Your task to perform on an android device: Search for the best rated Bluetooth earbuds on Ali express Image 0: 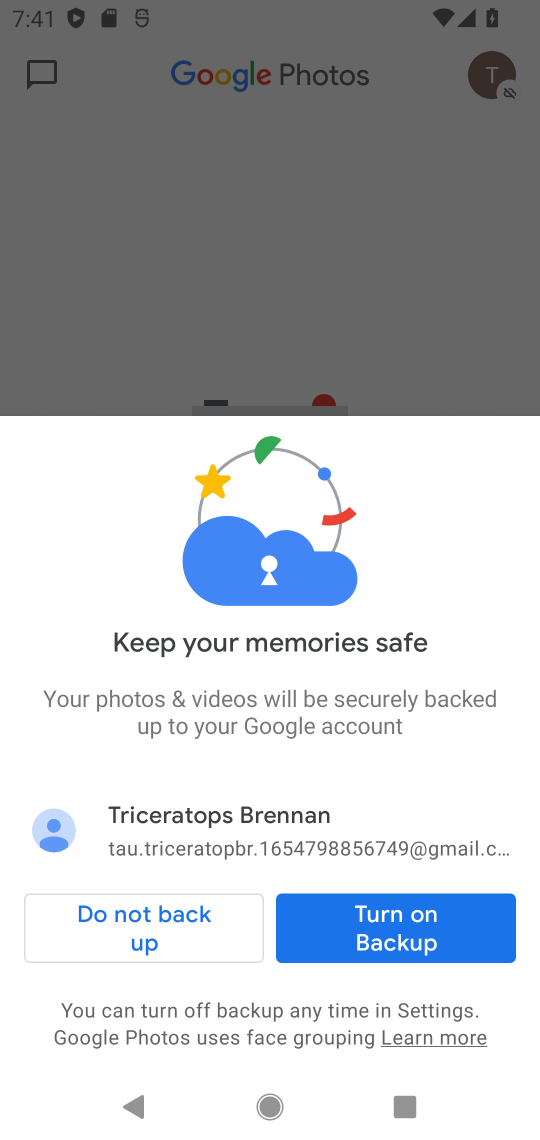
Step 0: press home button
Your task to perform on an android device: Search for the best rated Bluetooth earbuds on Ali express Image 1: 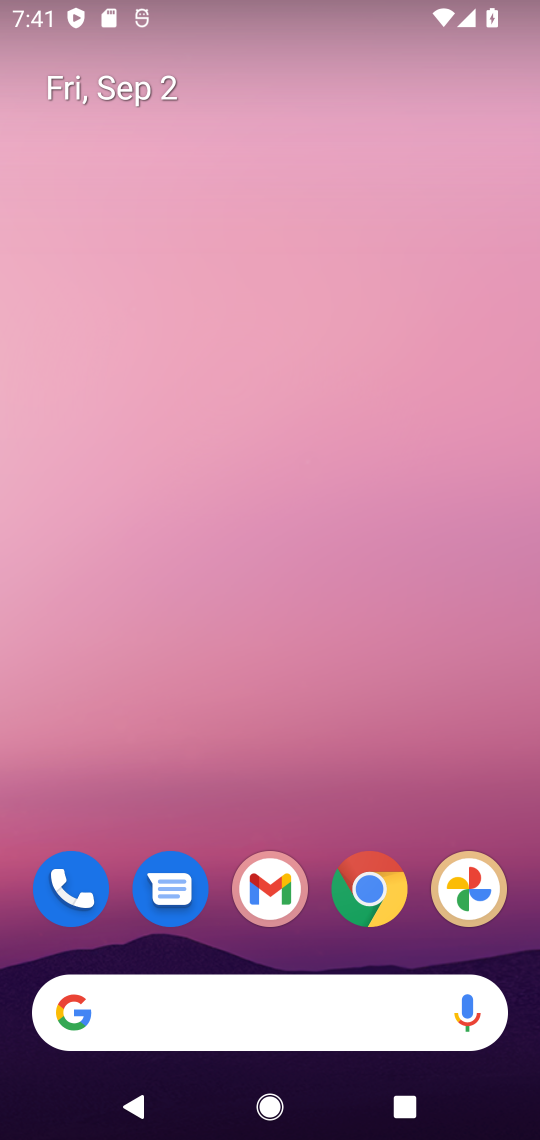
Step 1: click (384, 1004)
Your task to perform on an android device: Search for the best rated Bluetooth earbuds on Ali express Image 2: 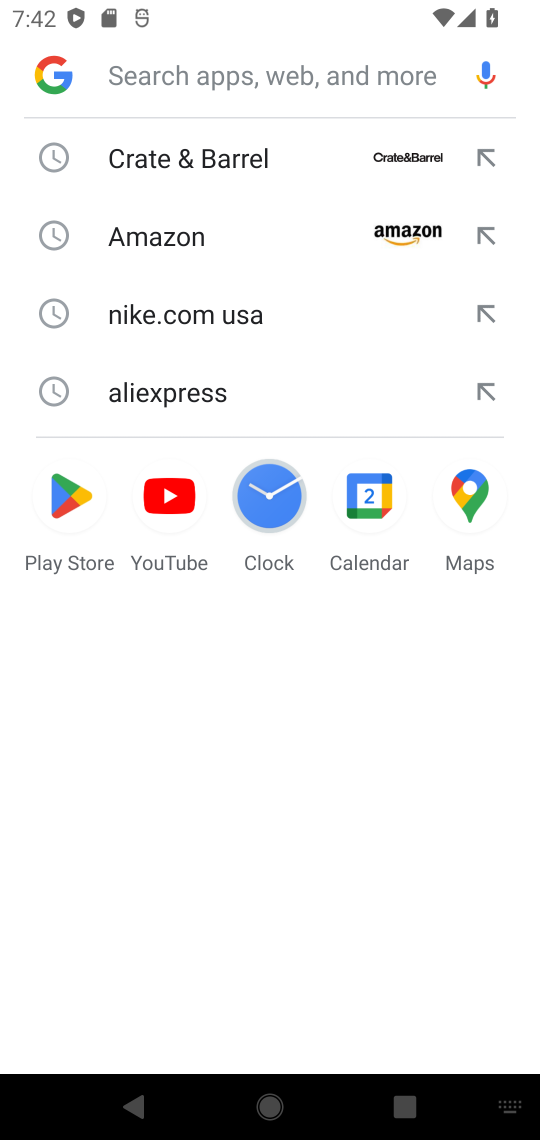
Step 2: type "Ali express"
Your task to perform on an android device: Search for the best rated Bluetooth earbuds on Ali express Image 3: 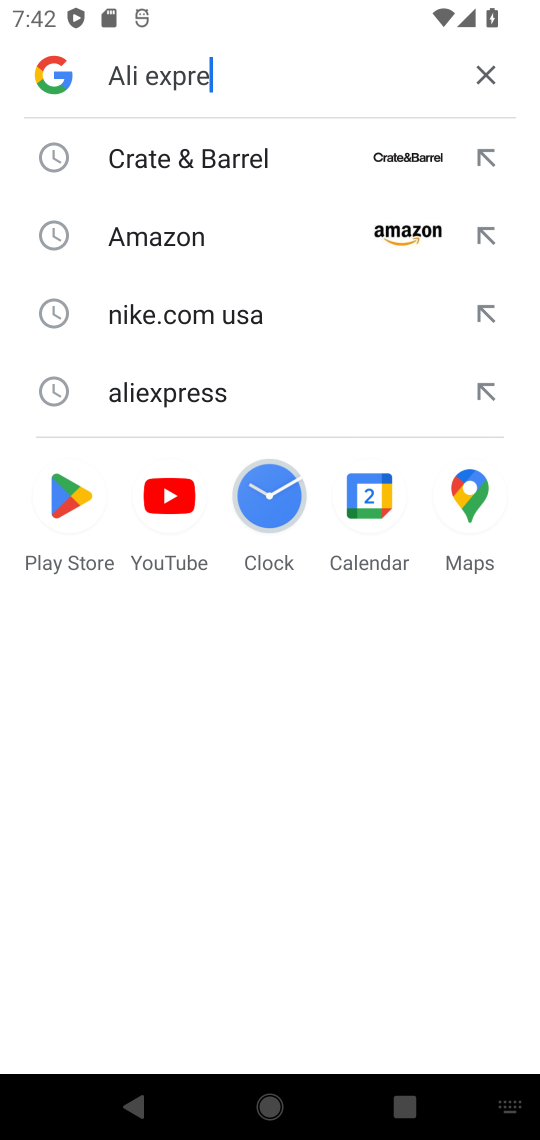
Step 3: type ""
Your task to perform on an android device: Search for the best rated Bluetooth earbuds on Ali express Image 4: 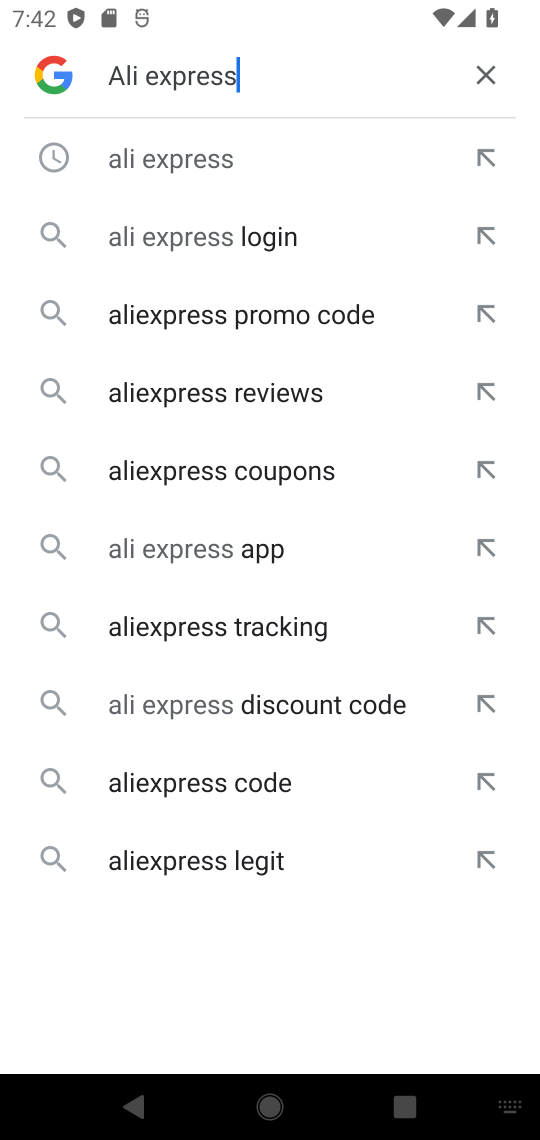
Step 4: click (148, 172)
Your task to perform on an android device: Search for the best rated Bluetooth earbuds on Ali express Image 5: 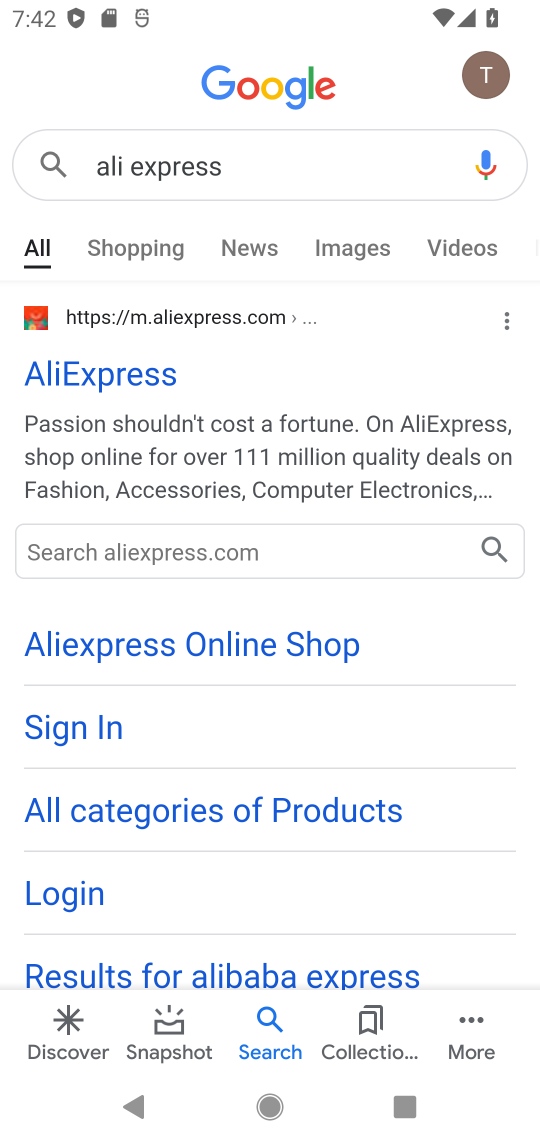
Step 5: click (127, 364)
Your task to perform on an android device: Search for the best rated Bluetooth earbuds on Ali express Image 6: 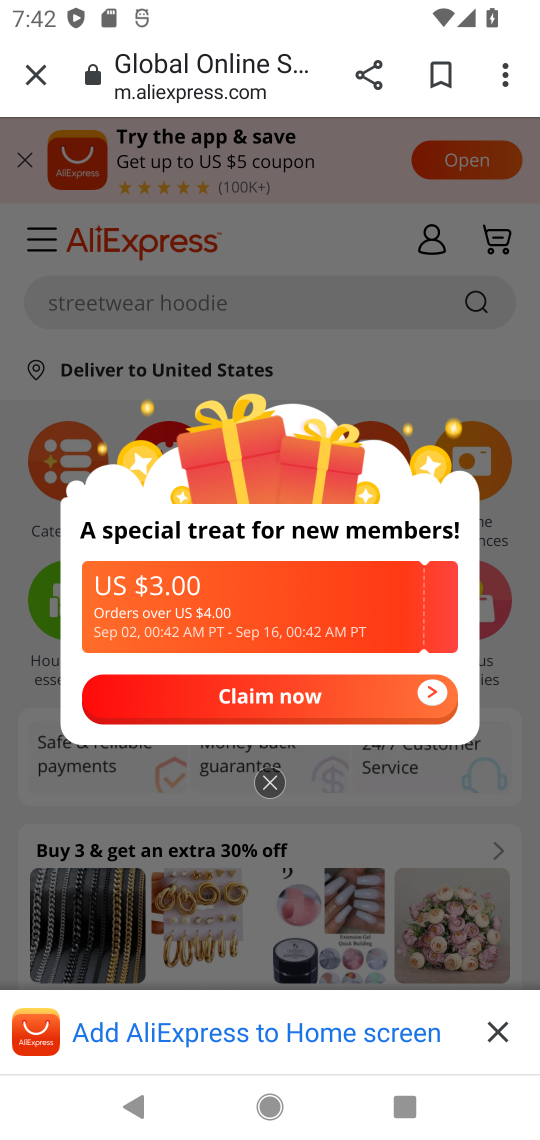
Step 6: click (268, 785)
Your task to perform on an android device: Search for the best rated Bluetooth earbuds on Ali express Image 7: 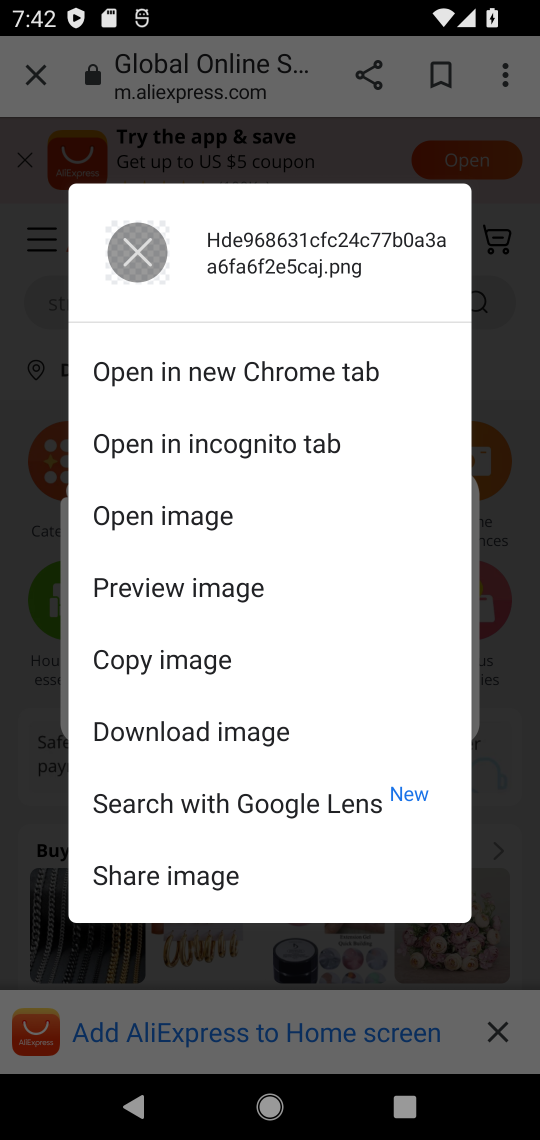
Step 7: click (136, 250)
Your task to perform on an android device: Search for the best rated Bluetooth earbuds on Ali express Image 8: 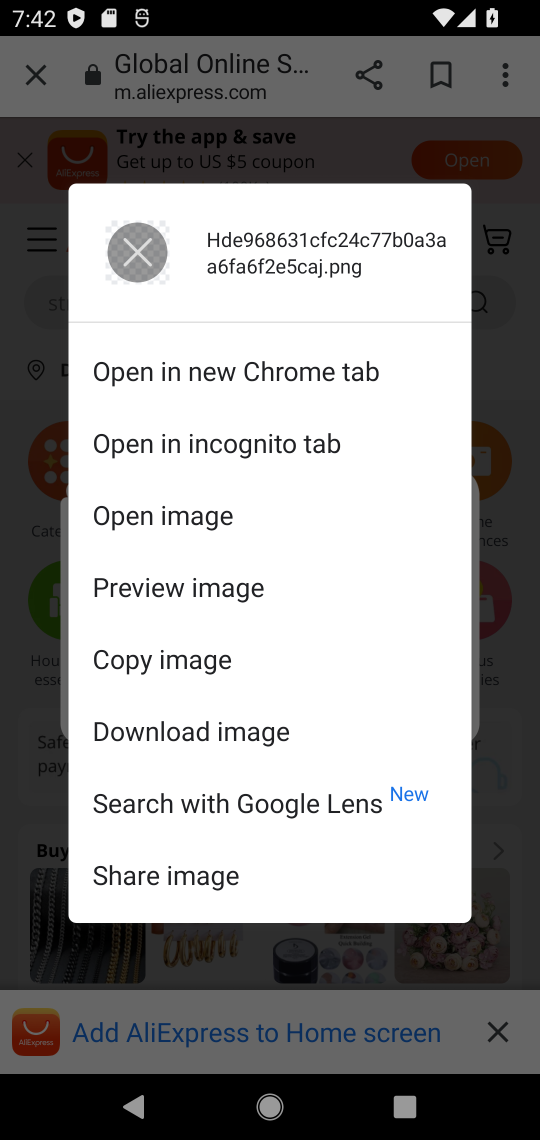
Step 8: click (140, 261)
Your task to perform on an android device: Search for the best rated Bluetooth earbuds on Ali express Image 9: 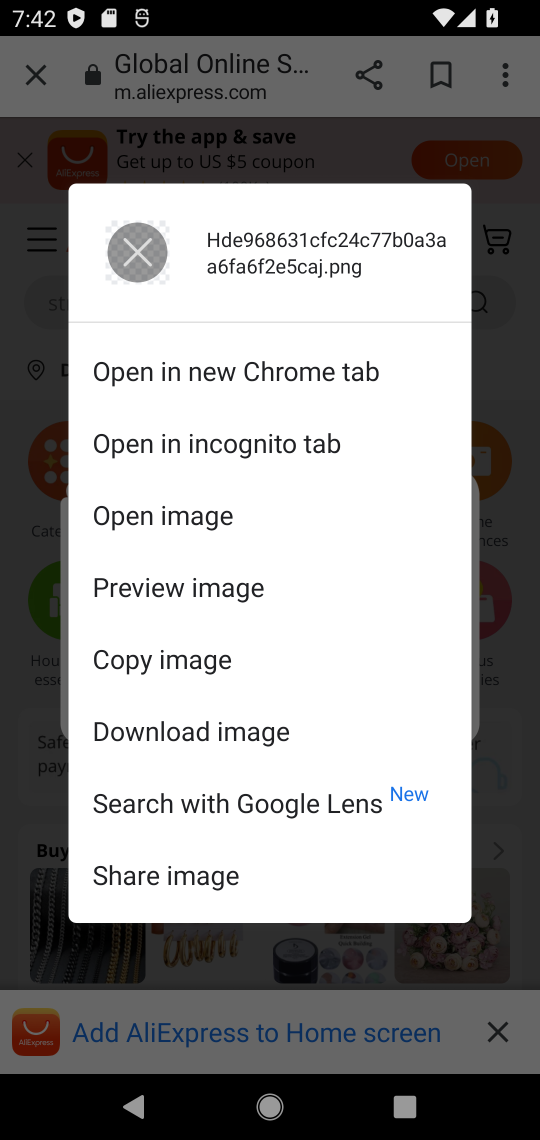
Step 9: click (140, 261)
Your task to perform on an android device: Search for the best rated Bluetooth earbuds on Ali express Image 10: 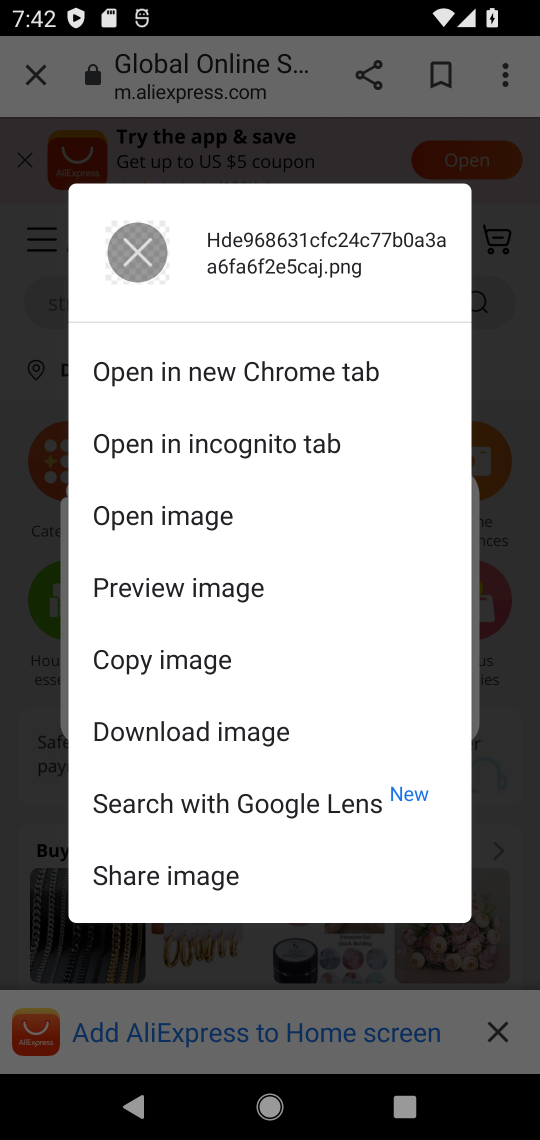
Step 10: click (142, 268)
Your task to perform on an android device: Search for the best rated Bluetooth earbuds on Ali express Image 11: 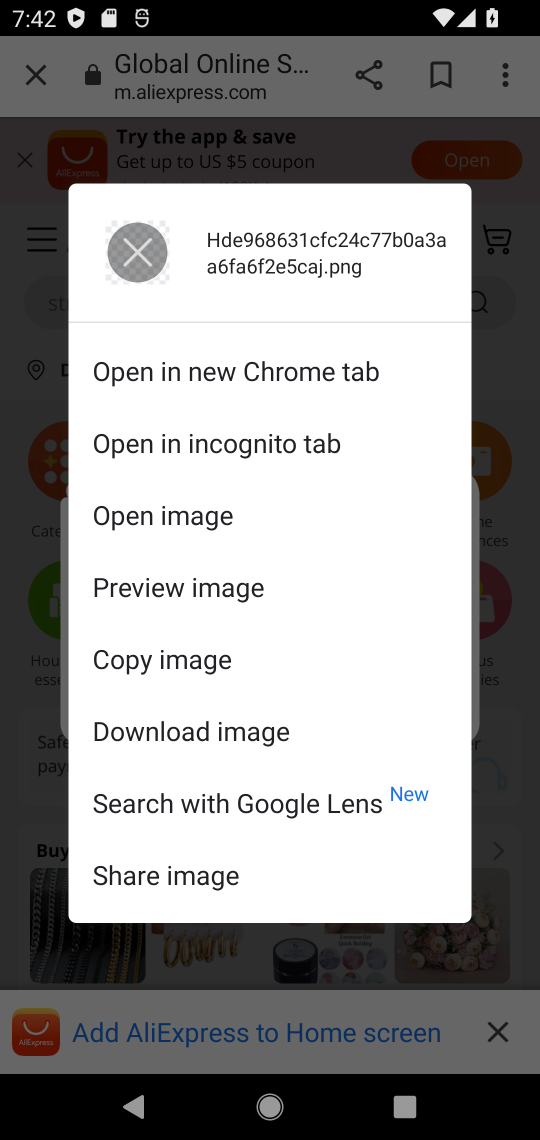
Step 11: press back button
Your task to perform on an android device: Search for the best rated Bluetooth earbuds on Ali express Image 12: 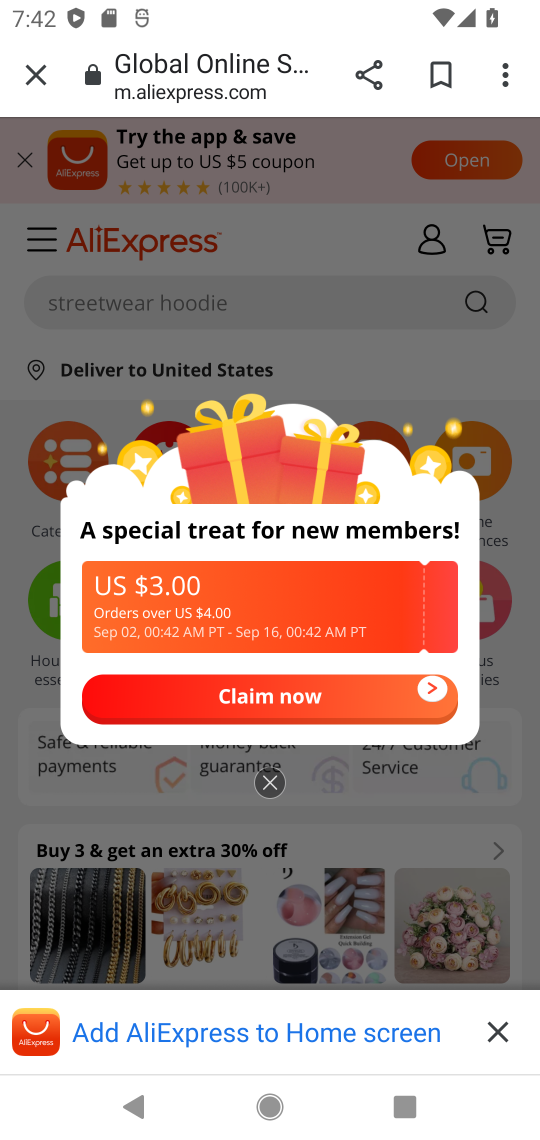
Step 12: click (268, 775)
Your task to perform on an android device: Search for the best rated Bluetooth earbuds on Ali express Image 13: 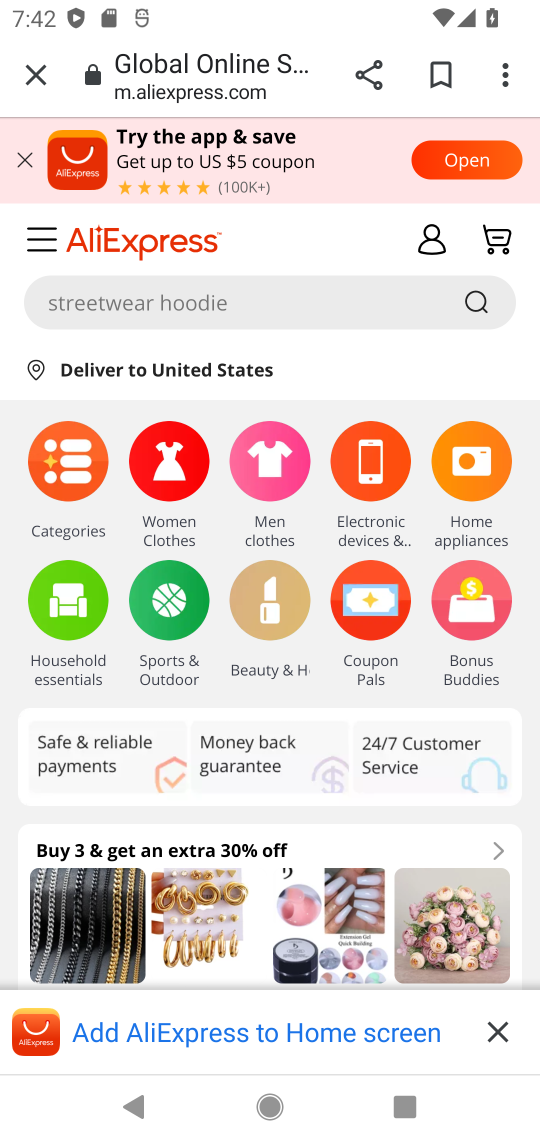
Step 13: click (197, 307)
Your task to perform on an android device: Search for the best rated Bluetooth earbuds on Ali express Image 14: 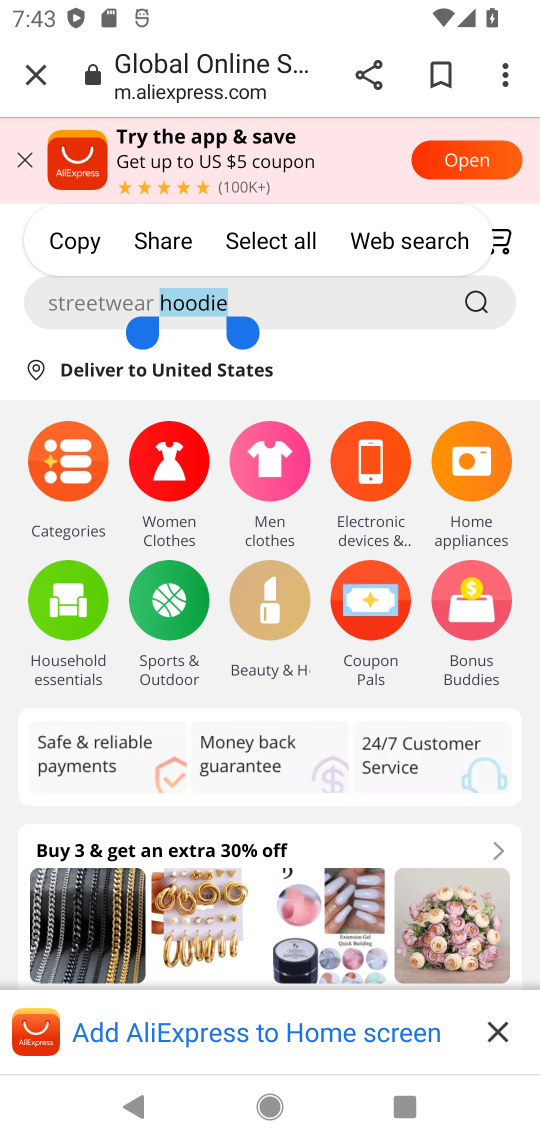
Step 14: click (410, 316)
Your task to perform on an android device: Search for the best rated Bluetooth earbuds on Ali express Image 15: 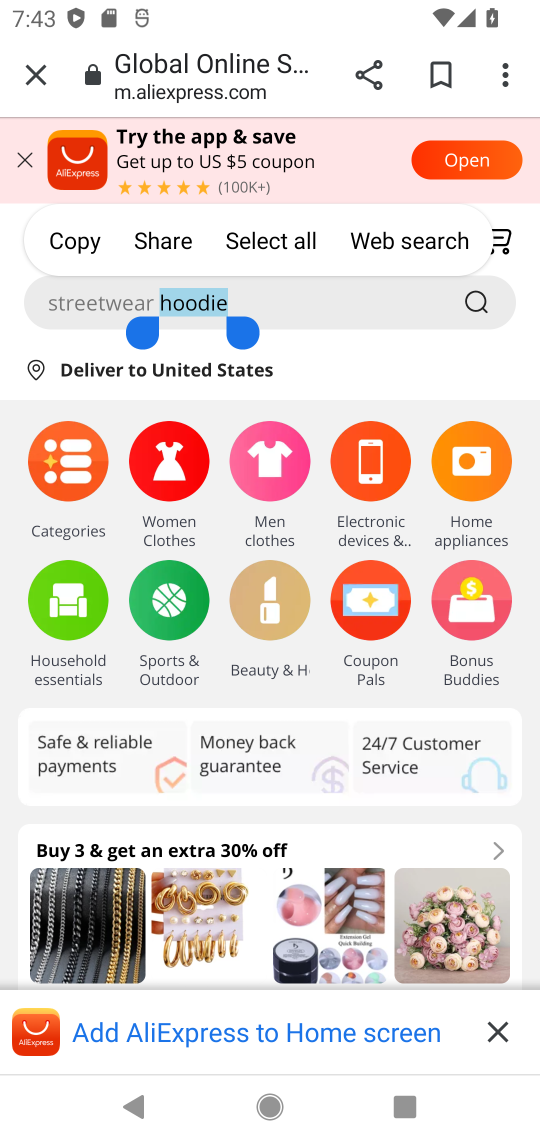
Step 15: drag from (199, 303) to (58, 304)
Your task to perform on an android device: Search for the best rated Bluetooth earbuds on Ali express Image 16: 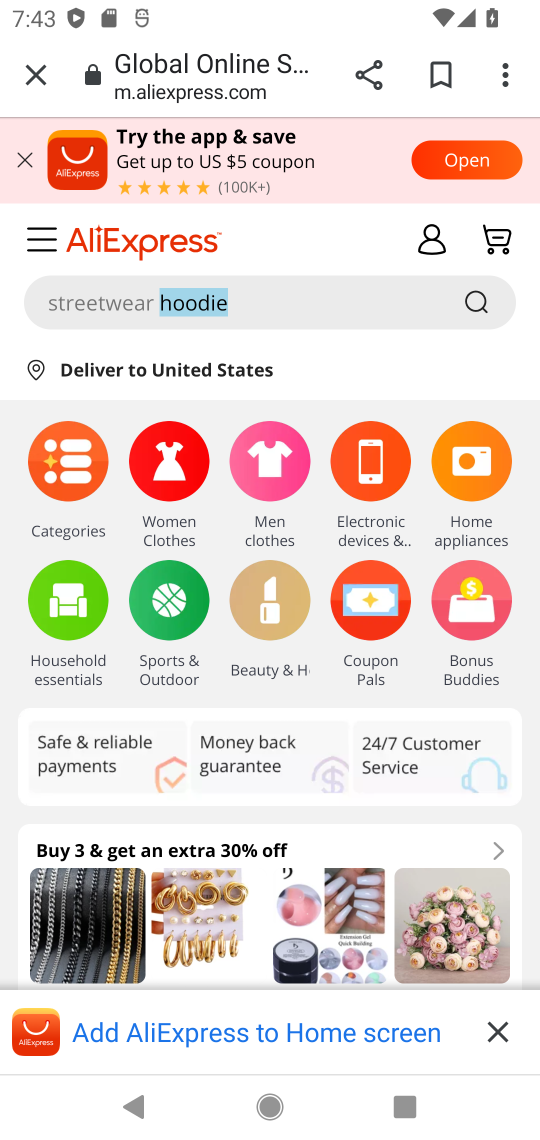
Step 16: drag from (123, 328) to (43, 303)
Your task to perform on an android device: Search for the best rated Bluetooth earbuds on Ali express Image 17: 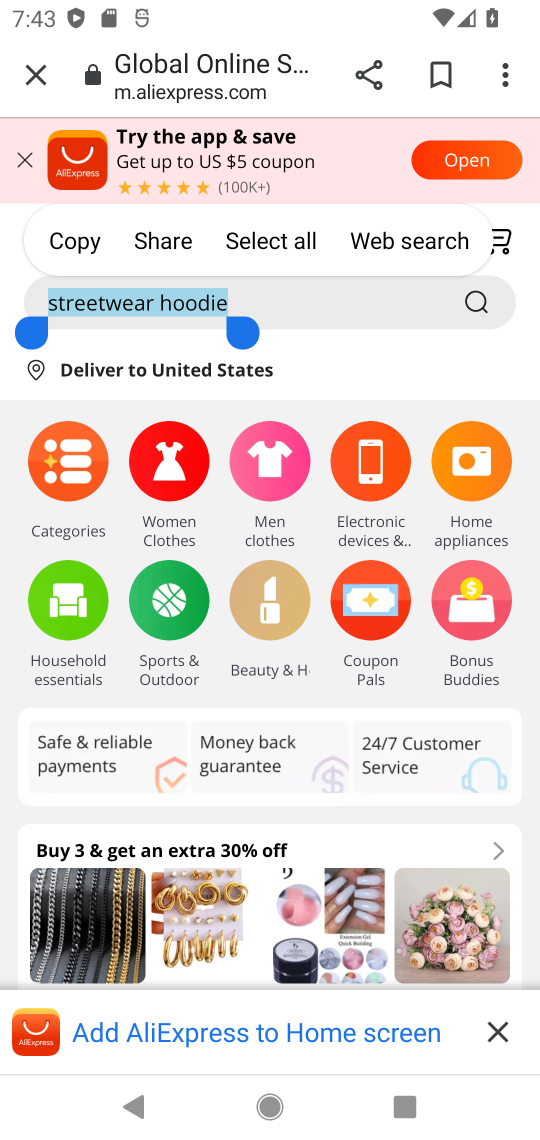
Step 17: type "Bluetooth earbud"
Your task to perform on an android device: Search for the best rated Bluetooth earbuds on Ali express Image 18: 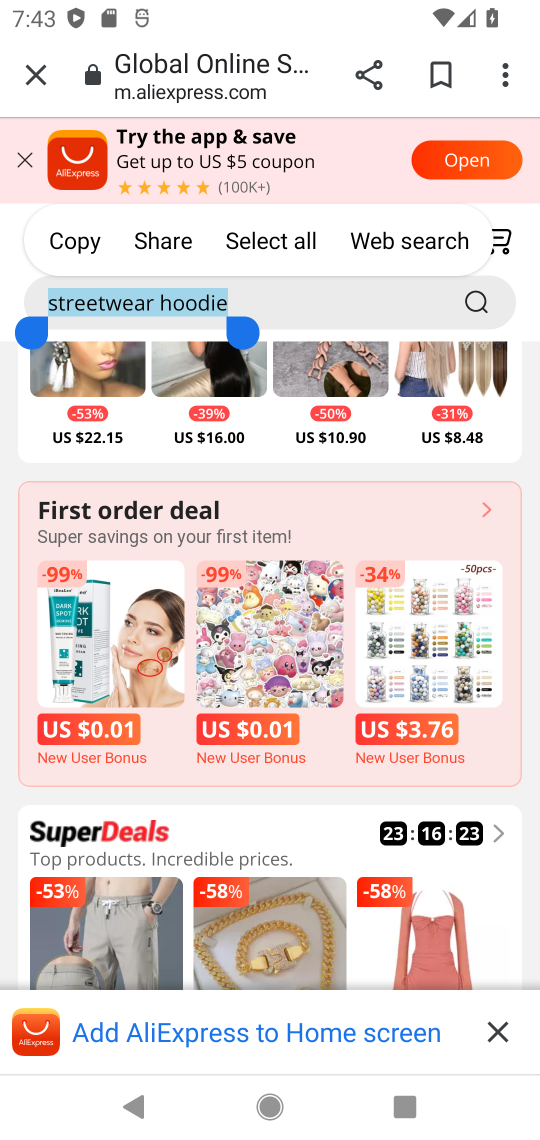
Step 18: click (343, 307)
Your task to perform on an android device: Search for the best rated Bluetooth earbuds on Ali express Image 19: 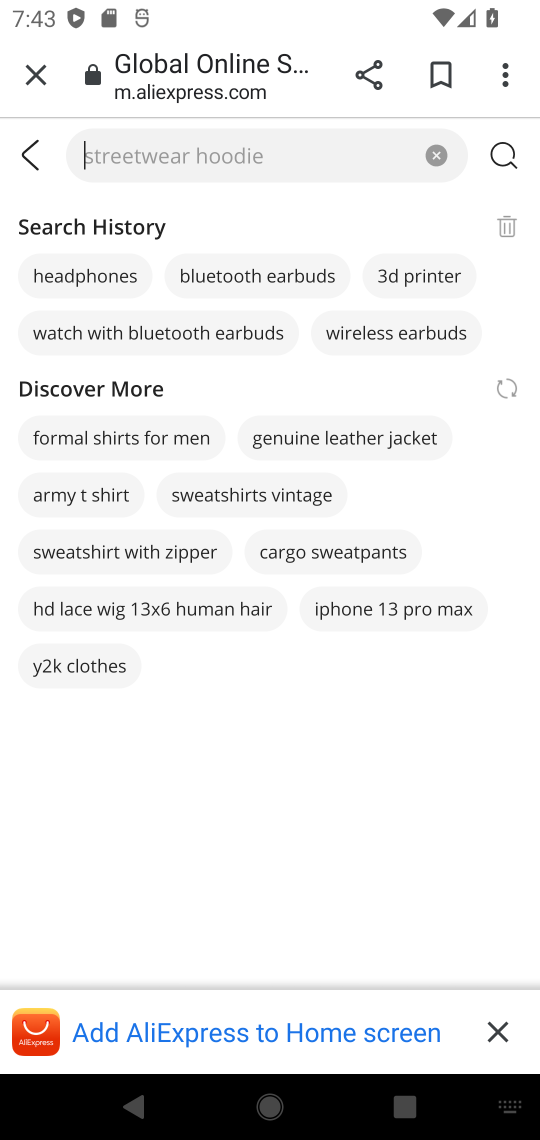
Step 19: click (421, 161)
Your task to perform on an android device: Search for the best rated Bluetooth earbuds on Ali express Image 20: 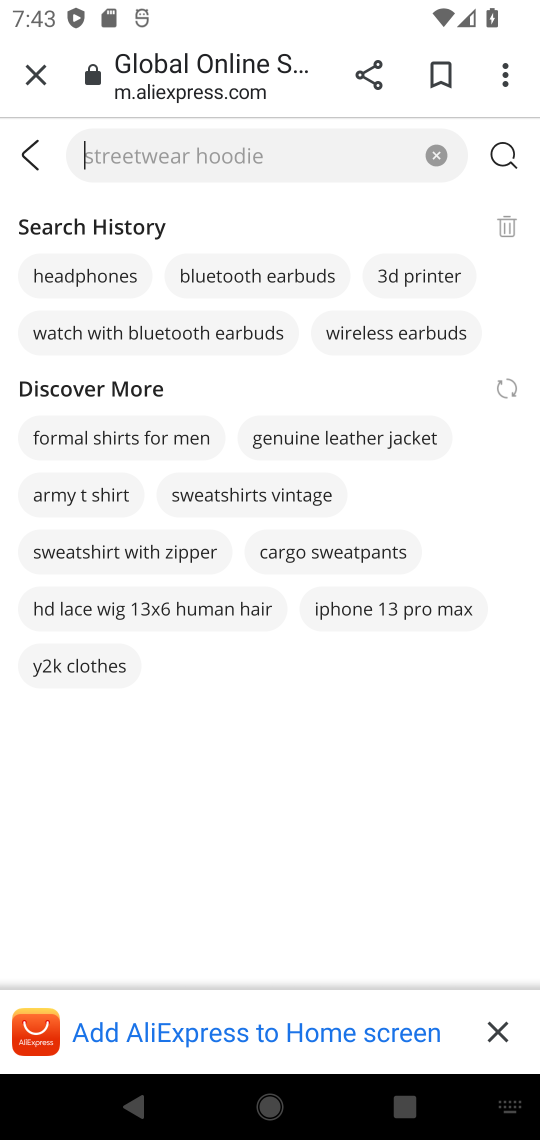
Step 20: type " Bluetooth earbuds"
Your task to perform on an android device: Search for the best rated Bluetooth earbuds on Ali express Image 21: 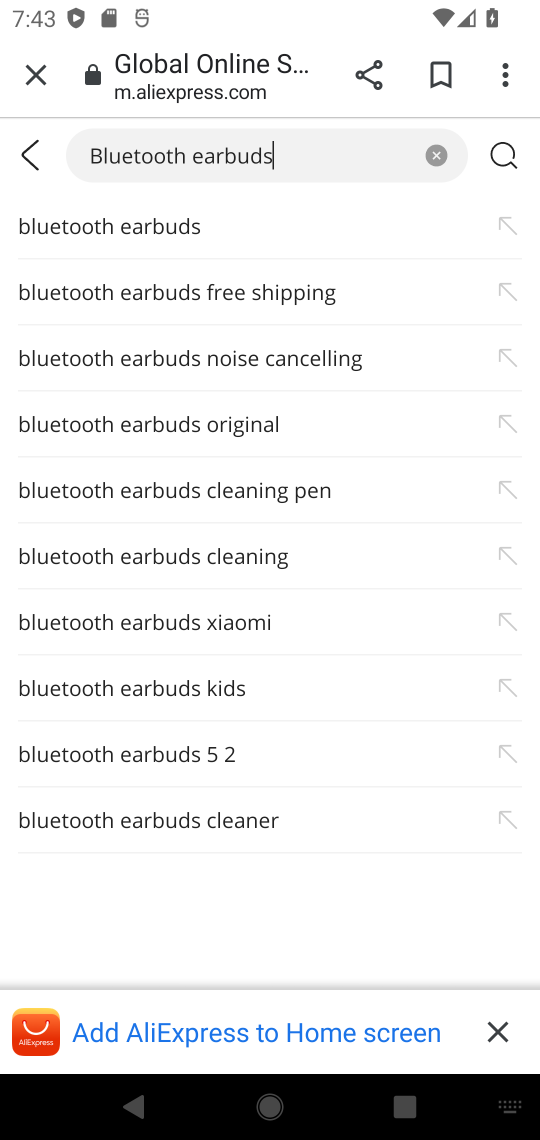
Step 21: click (196, 230)
Your task to perform on an android device: Search for the best rated Bluetooth earbuds on Ali express Image 22: 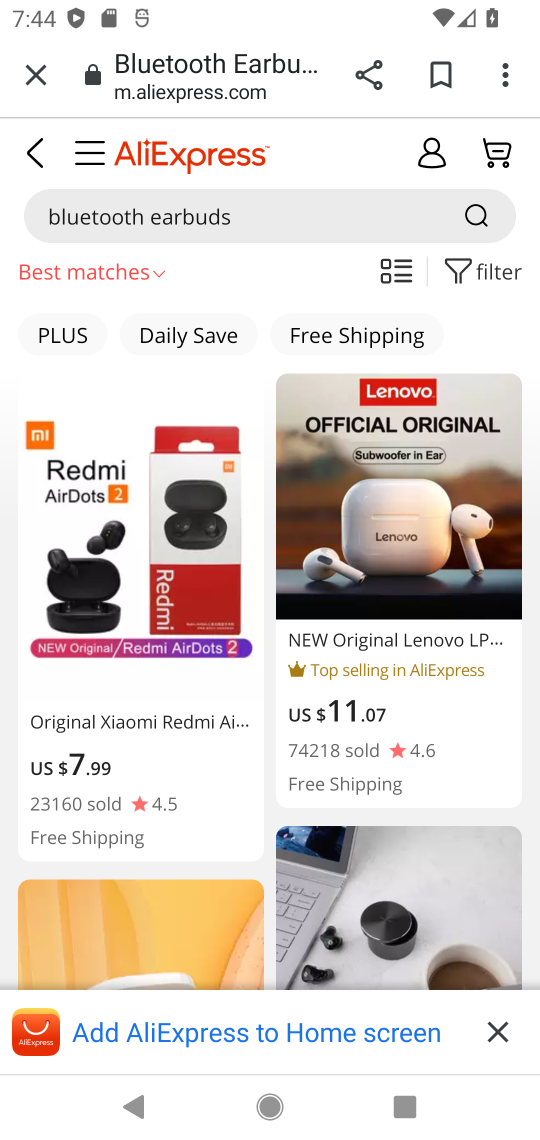
Step 22: task complete